Your task to perform on an android device: Open settings Image 0: 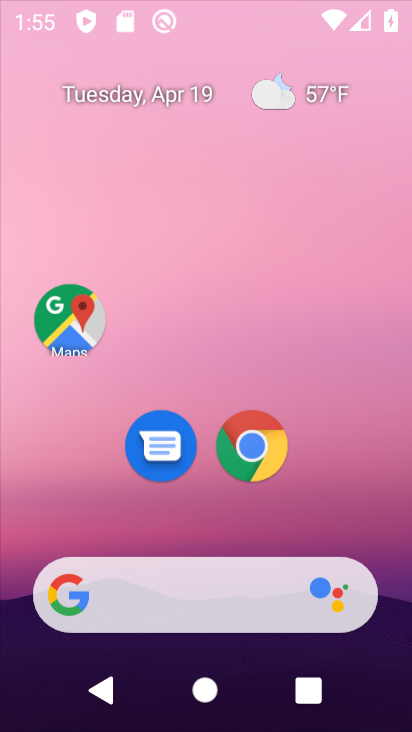
Step 0: drag from (301, 349) to (277, 10)
Your task to perform on an android device: Open settings Image 1: 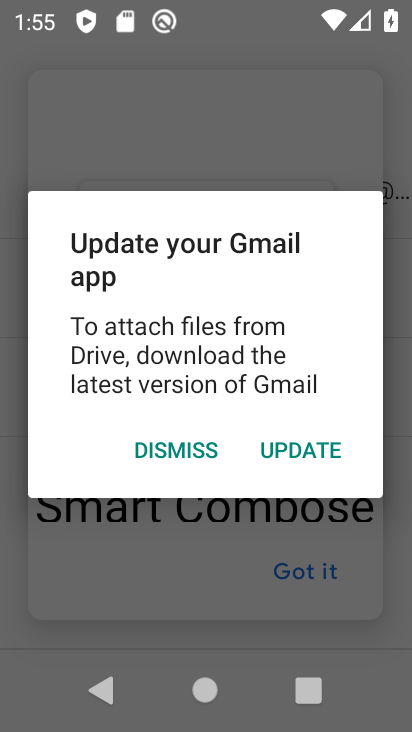
Step 1: click (140, 450)
Your task to perform on an android device: Open settings Image 2: 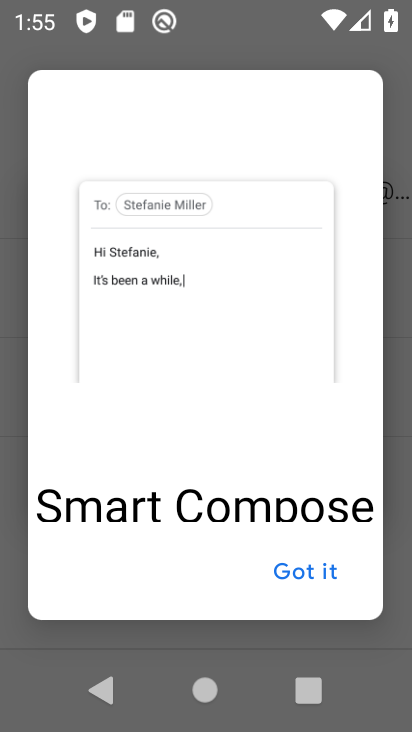
Step 2: click (293, 568)
Your task to perform on an android device: Open settings Image 3: 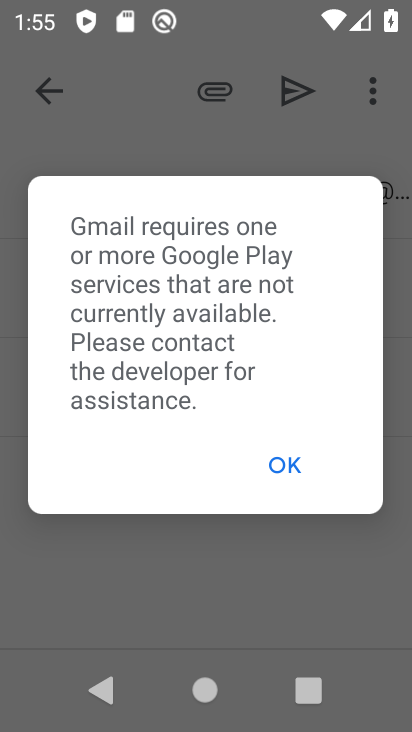
Step 3: click (287, 457)
Your task to perform on an android device: Open settings Image 4: 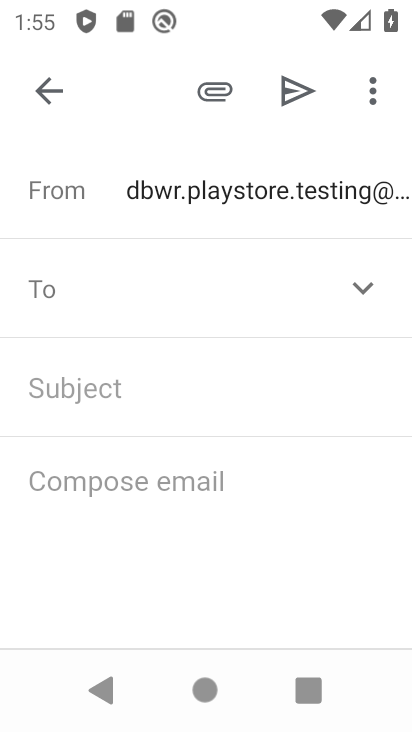
Step 4: click (30, 101)
Your task to perform on an android device: Open settings Image 5: 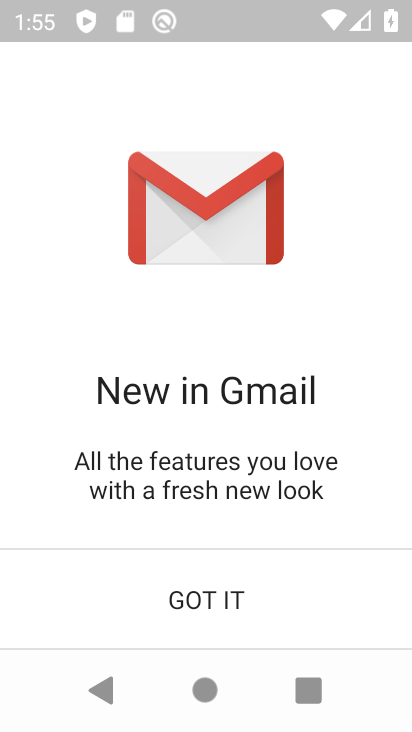
Step 5: click (108, 679)
Your task to perform on an android device: Open settings Image 6: 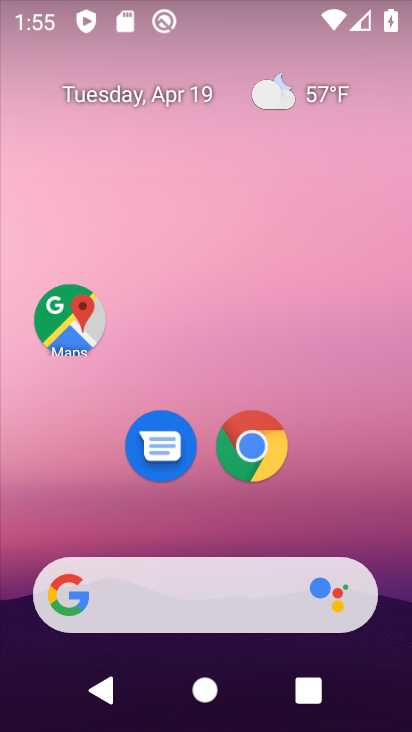
Step 6: drag from (323, 466) to (256, 88)
Your task to perform on an android device: Open settings Image 7: 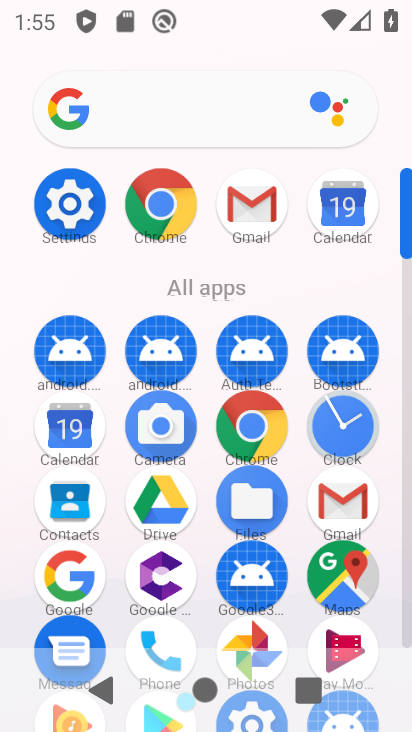
Step 7: click (86, 199)
Your task to perform on an android device: Open settings Image 8: 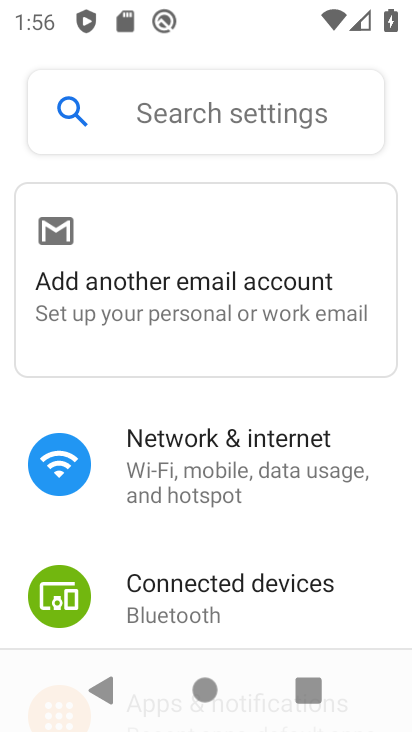
Step 8: task complete